Your task to perform on an android device: Open the stopwatch Image 0: 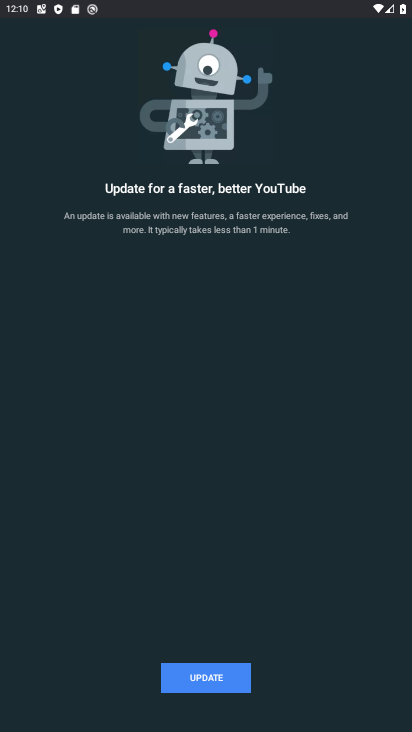
Step 0: press home button
Your task to perform on an android device: Open the stopwatch Image 1: 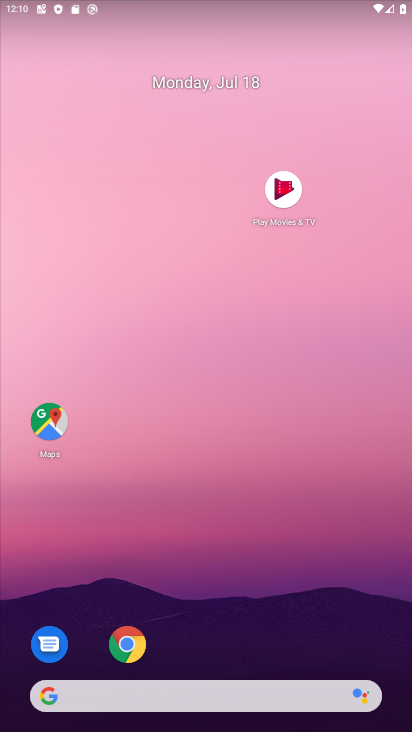
Step 1: drag from (260, 507) to (313, 50)
Your task to perform on an android device: Open the stopwatch Image 2: 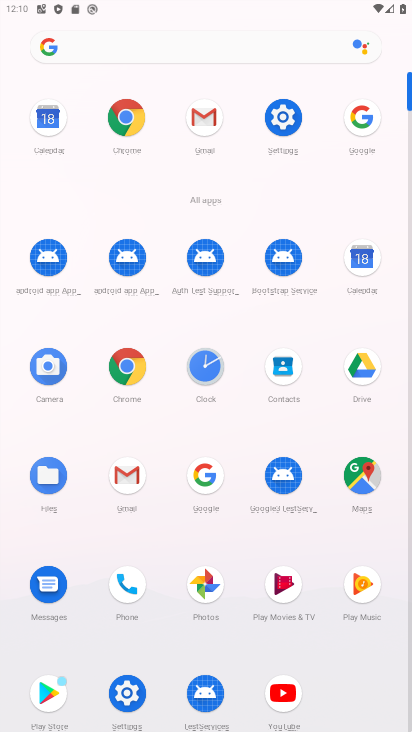
Step 2: click (205, 361)
Your task to perform on an android device: Open the stopwatch Image 3: 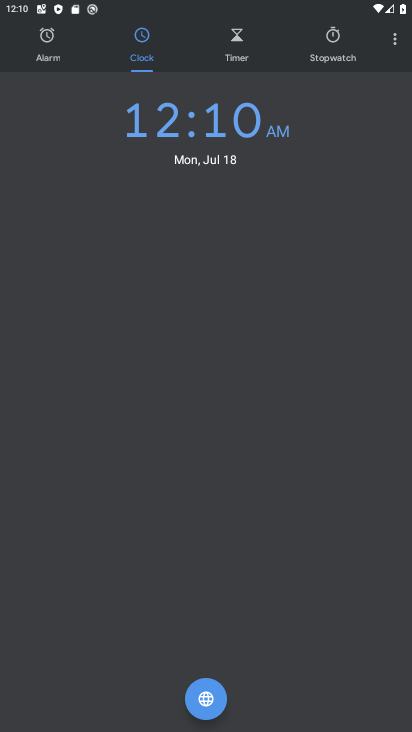
Step 3: click (328, 39)
Your task to perform on an android device: Open the stopwatch Image 4: 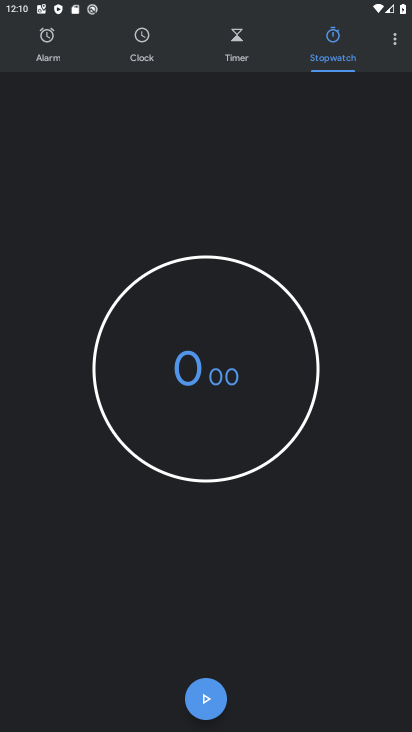
Step 4: task complete